Your task to perform on an android device: Open wifi settings Image 0: 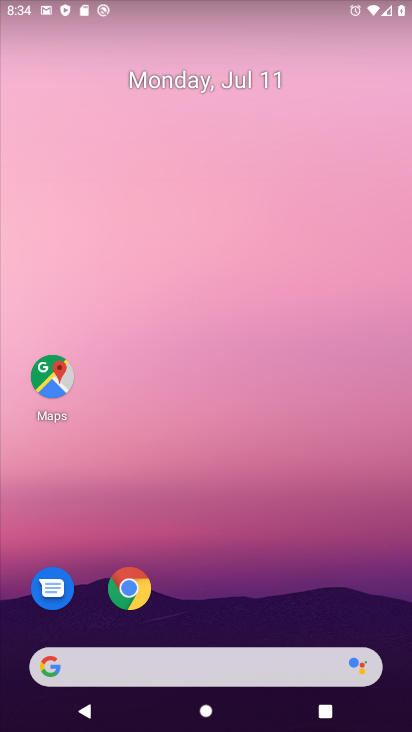
Step 0: drag from (156, 670) to (341, 48)
Your task to perform on an android device: Open wifi settings Image 1: 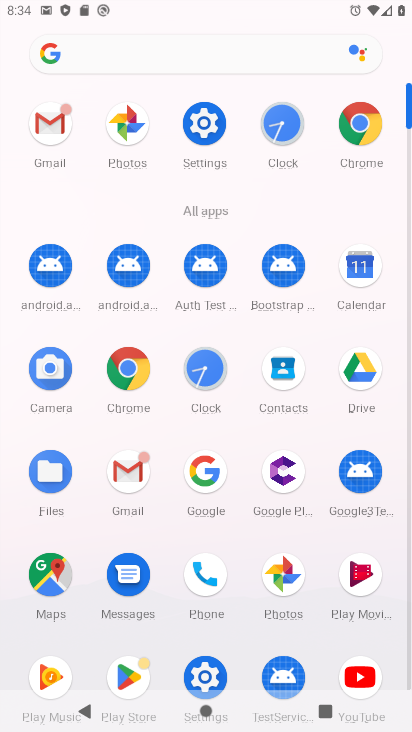
Step 1: click (201, 124)
Your task to perform on an android device: Open wifi settings Image 2: 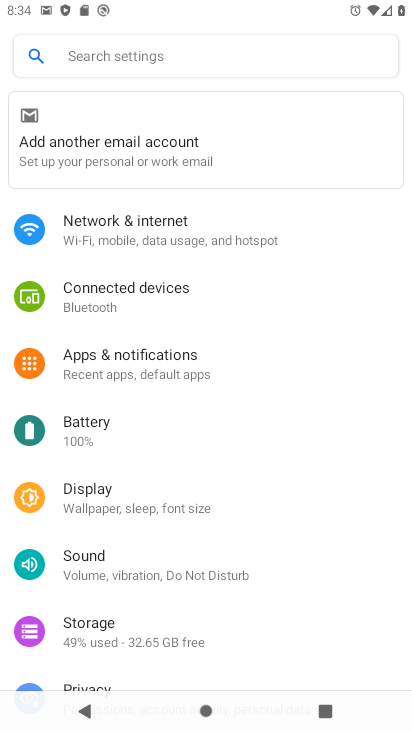
Step 2: click (183, 234)
Your task to perform on an android device: Open wifi settings Image 3: 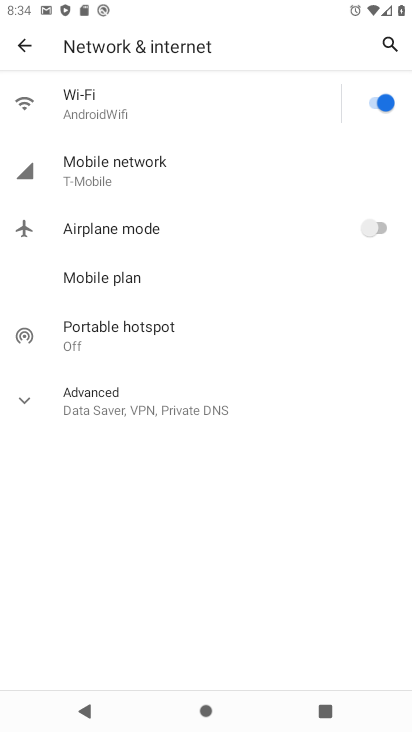
Step 3: click (92, 102)
Your task to perform on an android device: Open wifi settings Image 4: 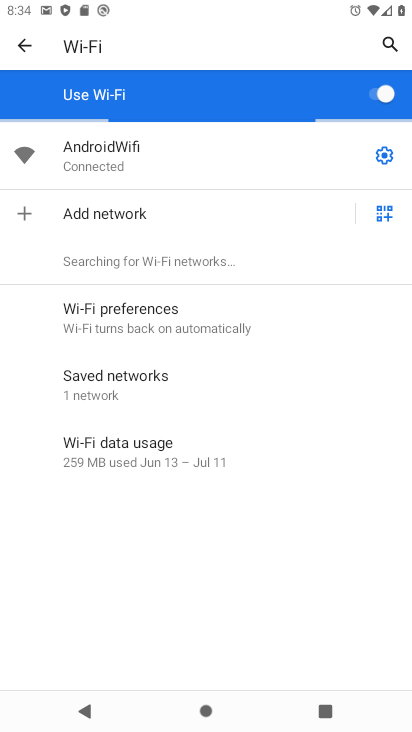
Step 4: task complete